Your task to perform on an android device: toggle priority inbox in the gmail app Image 0: 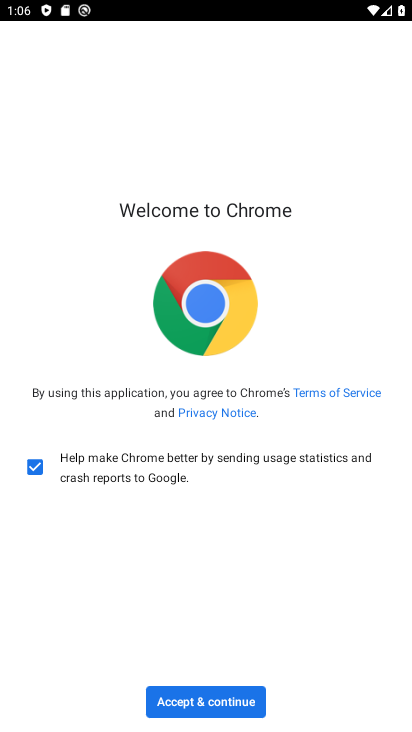
Step 0: press back button
Your task to perform on an android device: toggle priority inbox in the gmail app Image 1: 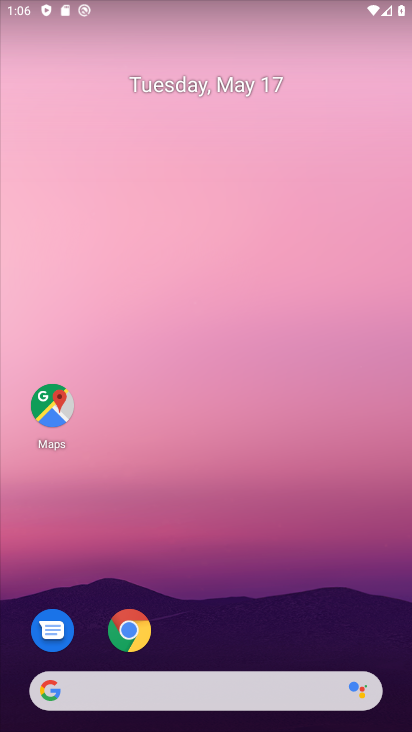
Step 1: drag from (172, 625) to (259, 31)
Your task to perform on an android device: toggle priority inbox in the gmail app Image 2: 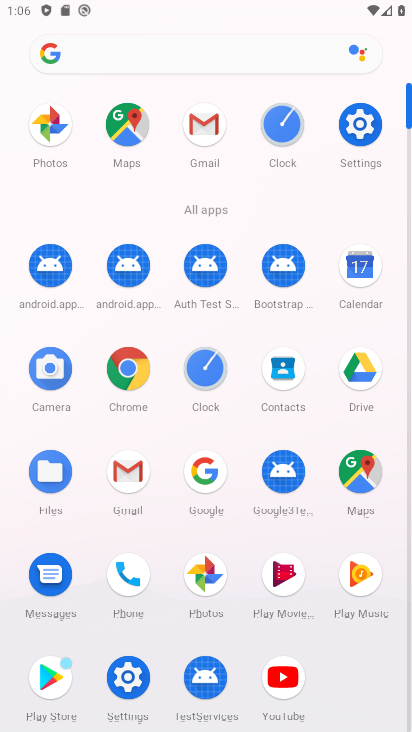
Step 2: click (214, 132)
Your task to perform on an android device: toggle priority inbox in the gmail app Image 3: 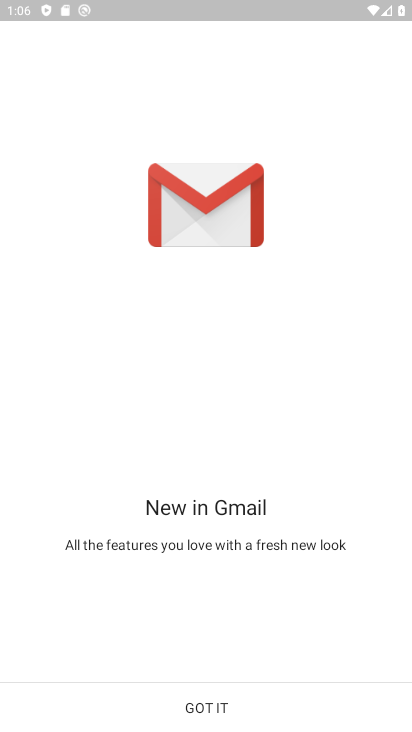
Step 3: click (199, 687)
Your task to perform on an android device: toggle priority inbox in the gmail app Image 4: 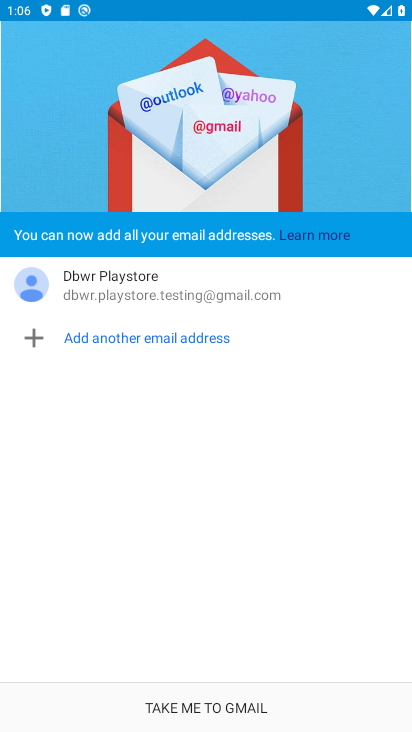
Step 4: click (229, 694)
Your task to perform on an android device: toggle priority inbox in the gmail app Image 5: 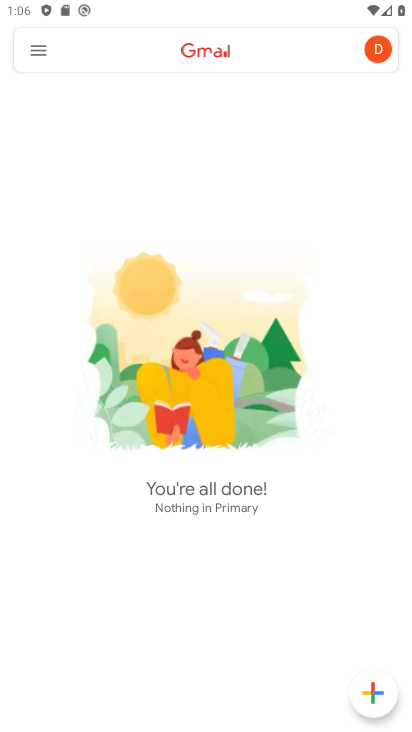
Step 5: click (26, 49)
Your task to perform on an android device: toggle priority inbox in the gmail app Image 6: 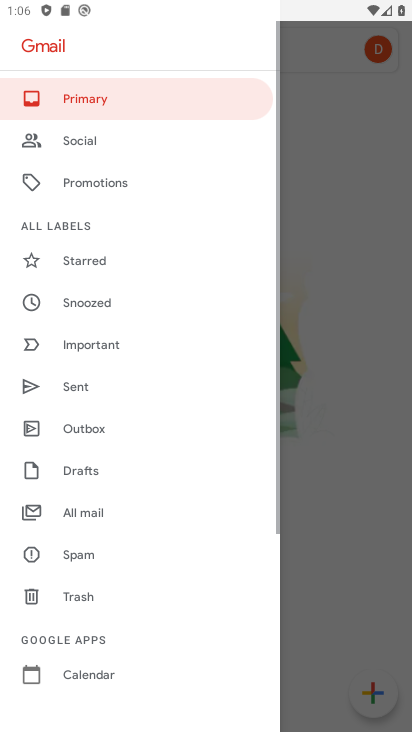
Step 6: drag from (105, 604) to (197, 89)
Your task to perform on an android device: toggle priority inbox in the gmail app Image 7: 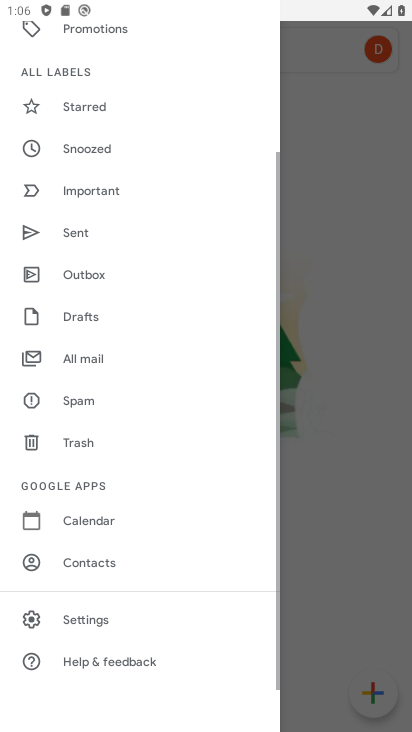
Step 7: click (67, 619)
Your task to perform on an android device: toggle priority inbox in the gmail app Image 8: 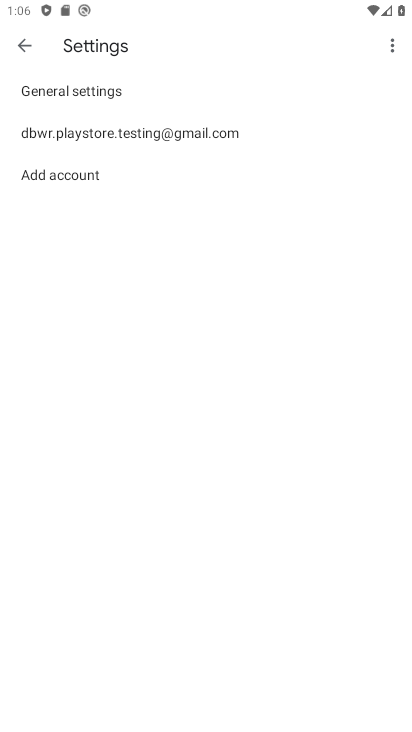
Step 8: click (94, 135)
Your task to perform on an android device: toggle priority inbox in the gmail app Image 9: 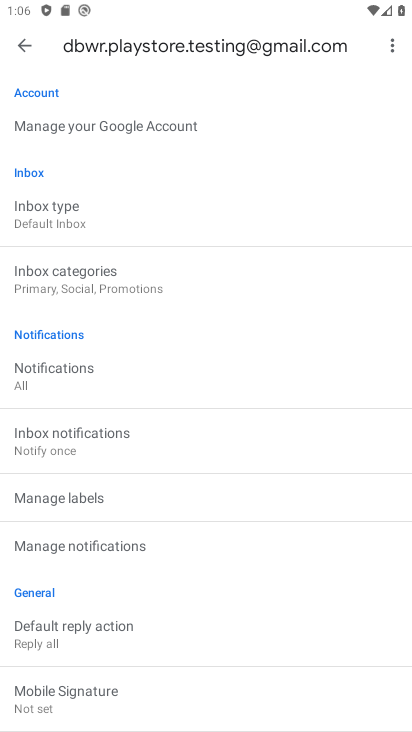
Step 9: click (74, 206)
Your task to perform on an android device: toggle priority inbox in the gmail app Image 10: 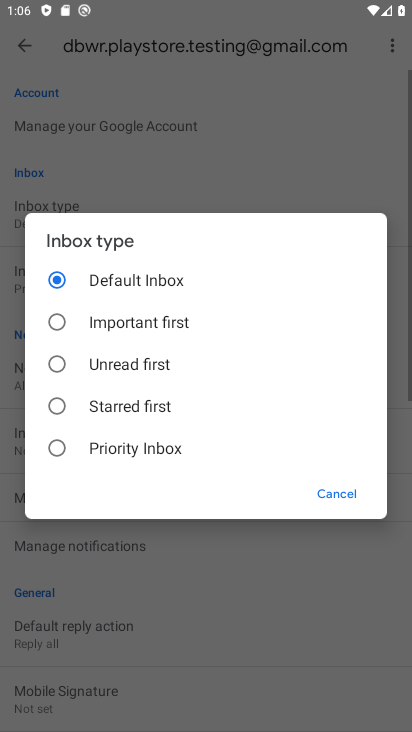
Step 10: click (75, 448)
Your task to perform on an android device: toggle priority inbox in the gmail app Image 11: 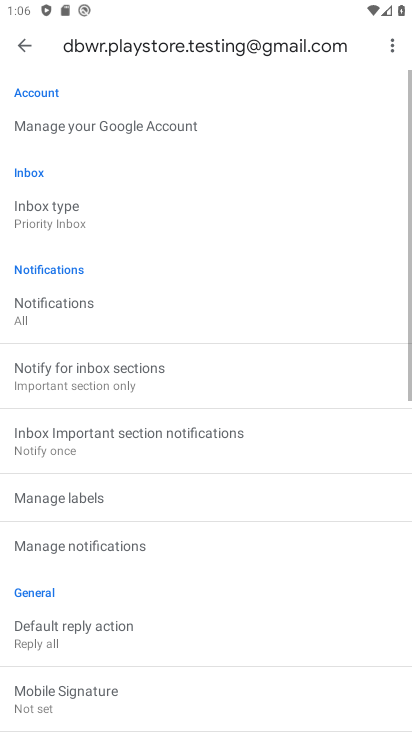
Step 11: task complete